Your task to perform on an android device: Open CNN.com Image 0: 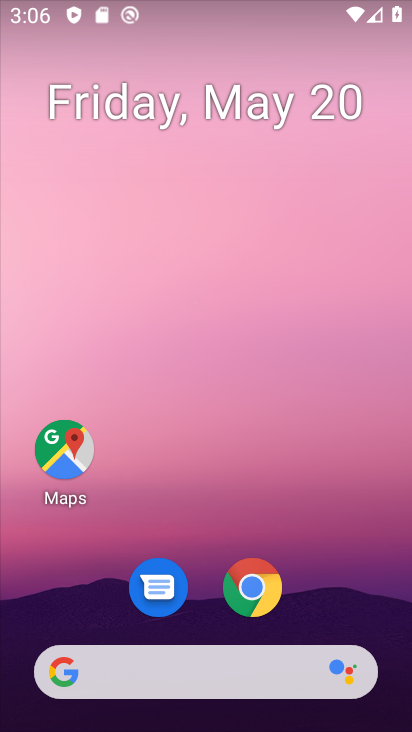
Step 0: click (260, 591)
Your task to perform on an android device: Open CNN.com Image 1: 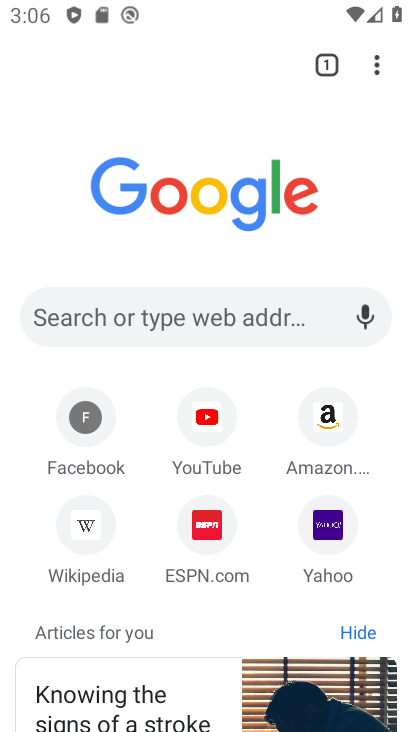
Step 1: click (157, 323)
Your task to perform on an android device: Open CNN.com Image 2: 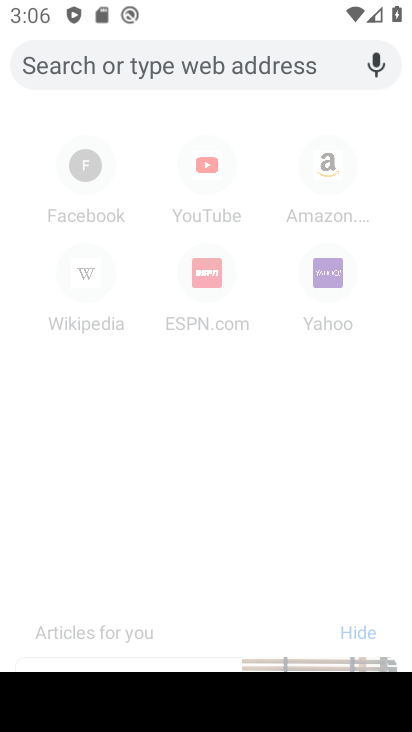
Step 2: type "CNN.com"
Your task to perform on an android device: Open CNN.com Image 3: 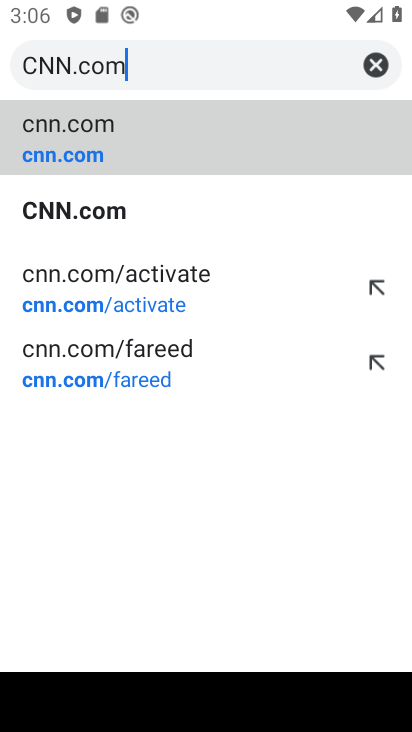
Step 3: type ""
Your task to perform on an android device: Open CNN.com Image 4: 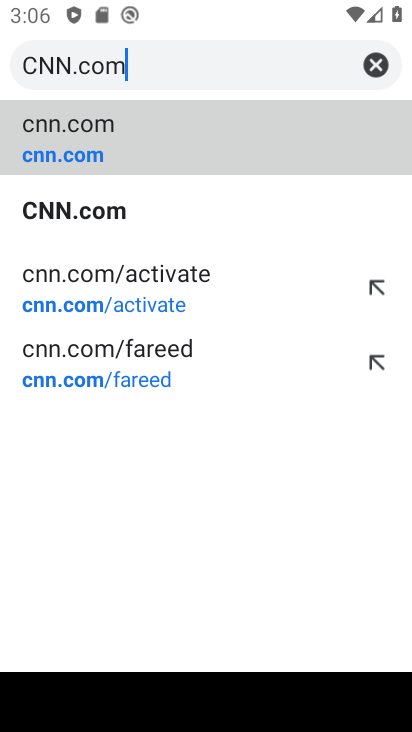
Step 4: click (144, 119)
Your task to perform on an android device: Open CNN.com Image 5: 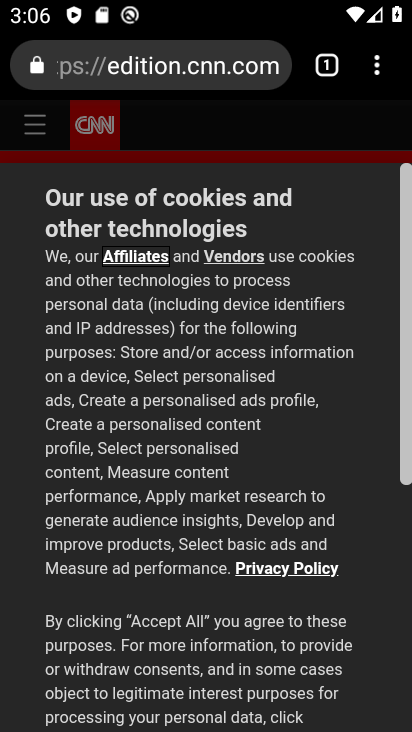
Step 5: task complete